Your task to perform on an android device: turn off location Image 0: 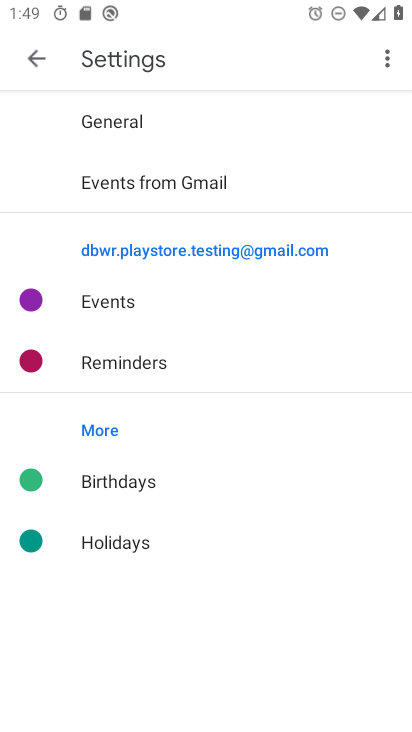
Step 0: press home button
Your task to perform on an android device: turn off location Image 1: 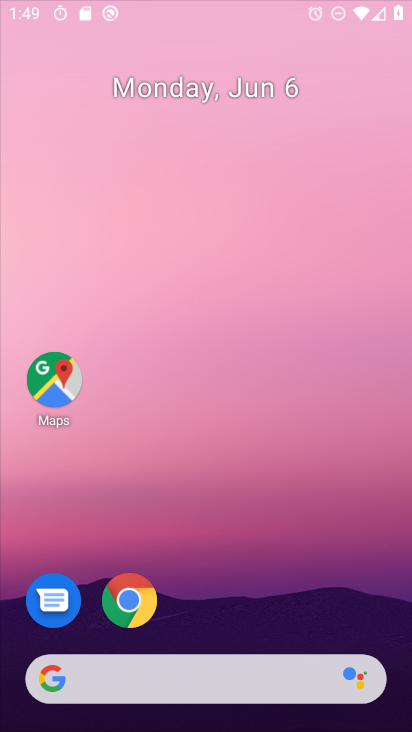
Step 1: press home button
Your task to perform on an android device: turn off location Image 2: 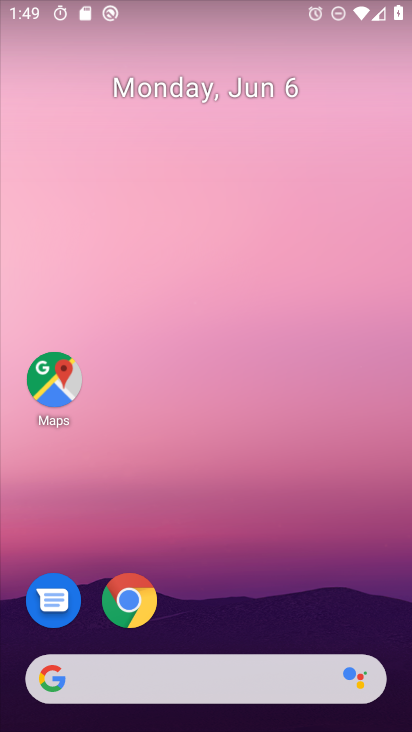
Step 2: drag from (203, 605) to (243, 199)
Your task to perform on an android device: turn off location Image 3: 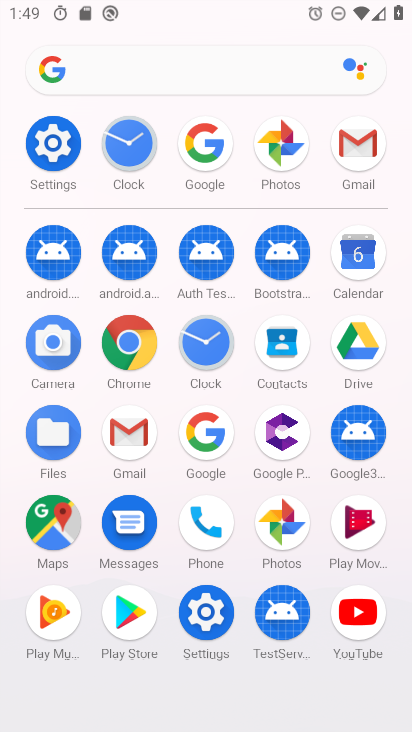
Step 3: click (49, 152)
Your task to perform on an android device: turn off location Image 4: 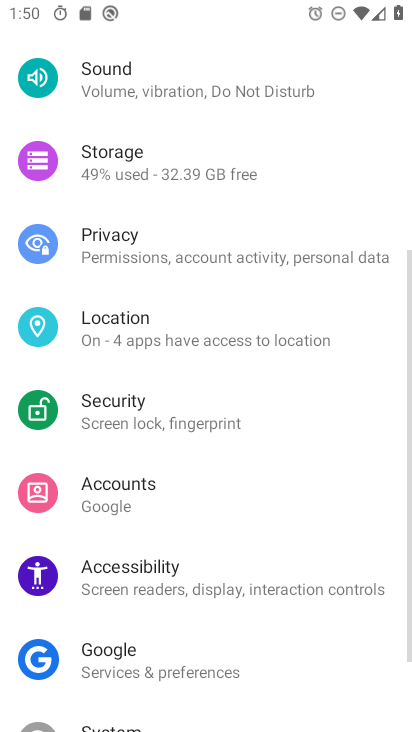
Step 4: click (127, 333)
Your task to perform on an android device: turn off location Image 5: 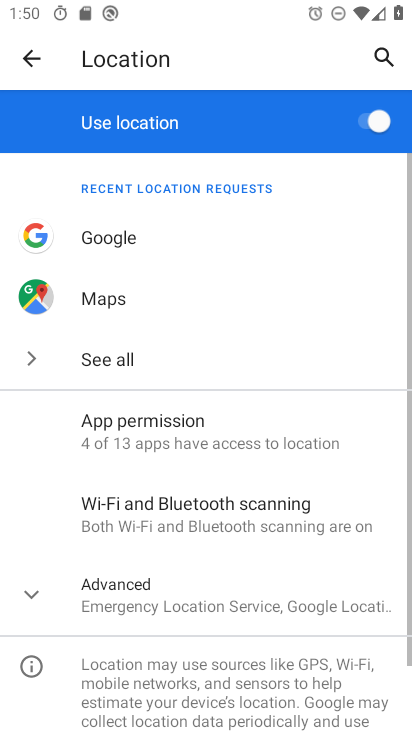
Step 5: click (364, 122)
Your task to perform on an android device: turn off location Image 6: 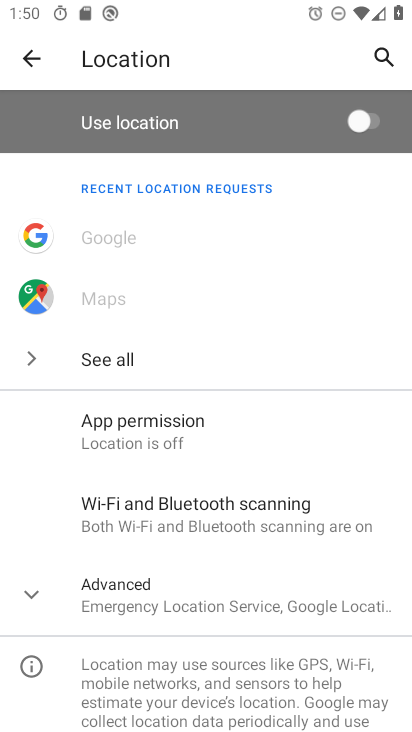
Step 6: task complete